Your task to perform on an android device: Search for Italian restaurants on Maps Image 0: 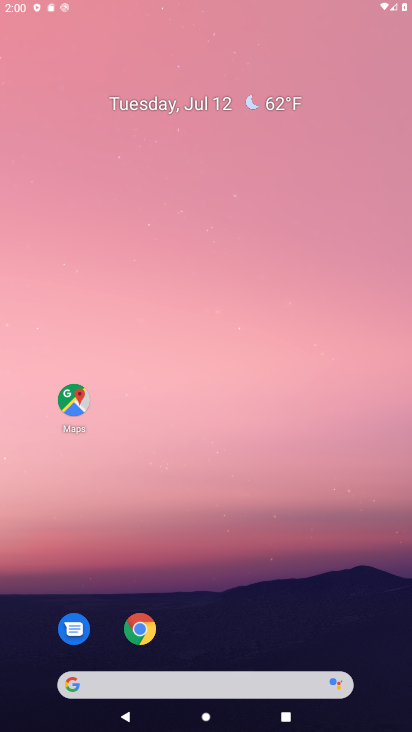
Step 0: press home button
Your task to perform on an android device: Search for Italian restaurants on Maps Image 1: 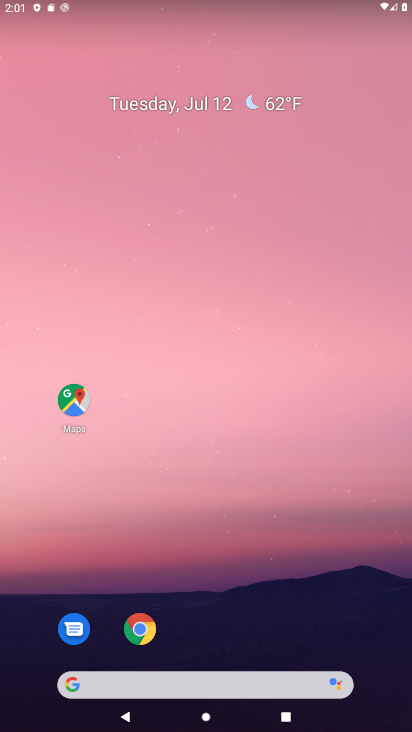
Step 1: drag from (201, 656) to (200, 82)
Your task to perform on an android device: Search for Italian restaurants on Maps Image 2: 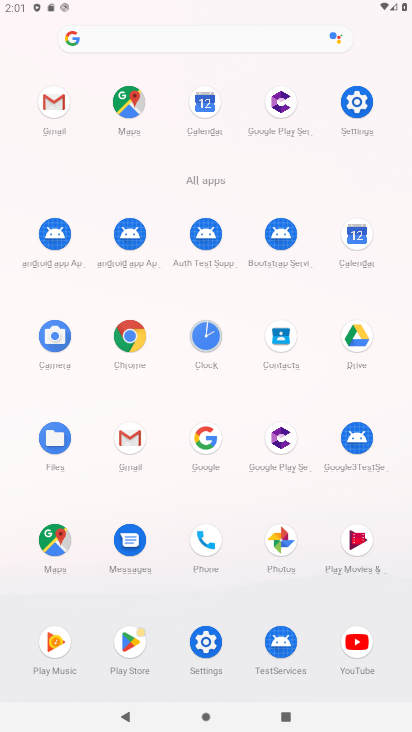
Step 2: click (127, 100)
Your task to perform on an android device: Search for Italian restaurants on Maps Image 3: 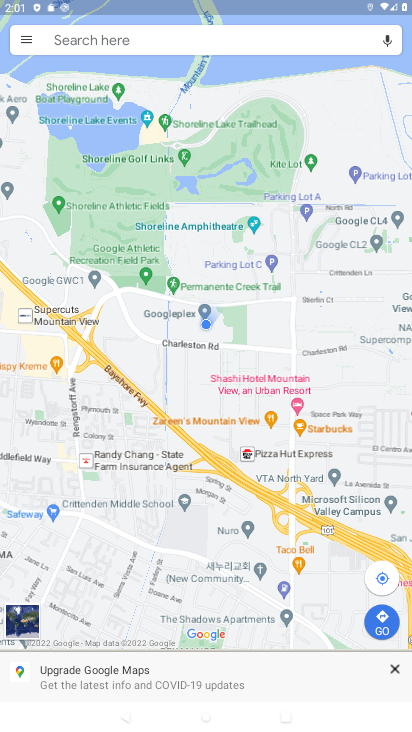
Step 3: click (98, 34)
Your task to perform on an android device: Search for Italian restaurants on Maps Image 4: 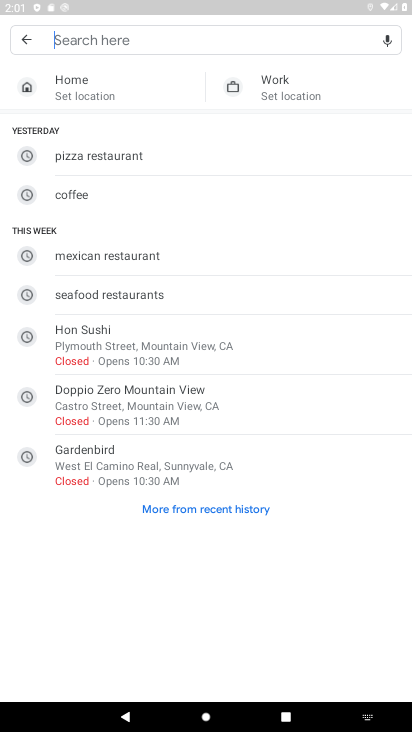
Step 4: type "italian"
Your task to perform on an android device: Search for Italian restaurants on Maps Image 5: 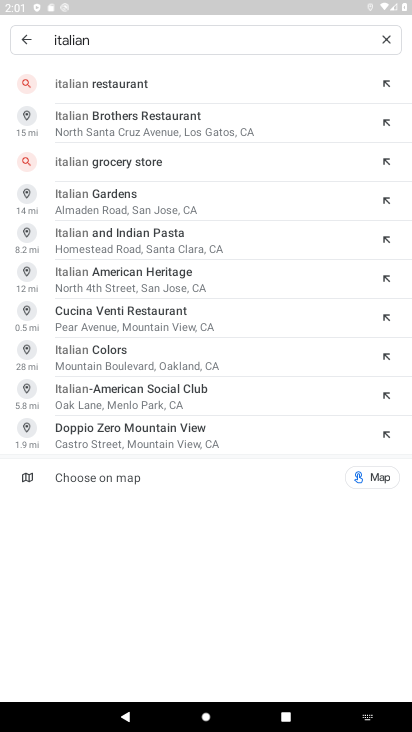
Step 5: click (156, 84)
Your task to perform on an android device: Search for Italian restaurants on Maps Image 6: 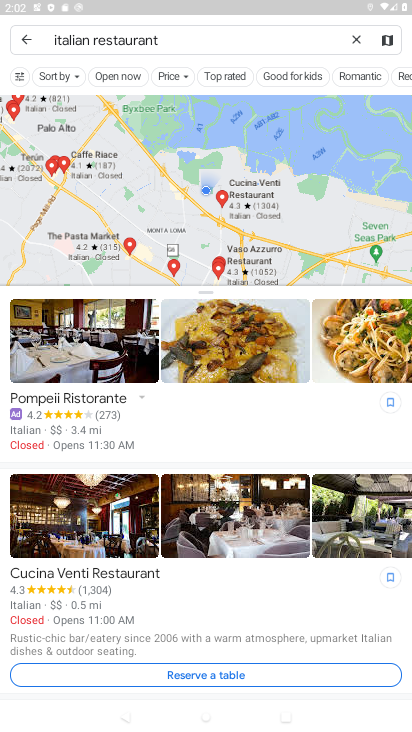
Step 6: task complete